Your task to perform on an android device: turn off airplane mode Image 0: 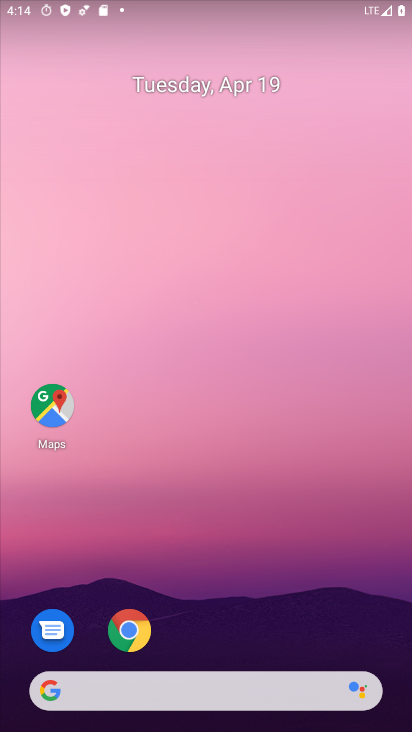
Step 0: drag from (220, 633) to (212, 152)
Your task to perform on an android device: turn off airplane mode Image 1: 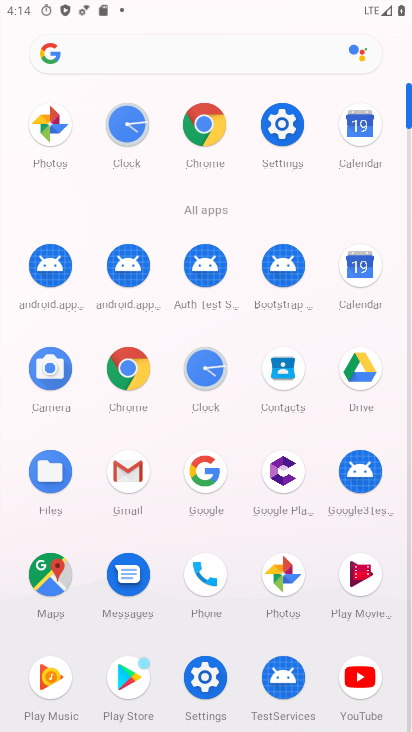
Step 1: click (284, 139)
Your task to perform on an android device: turn off airplane mode Image 2: 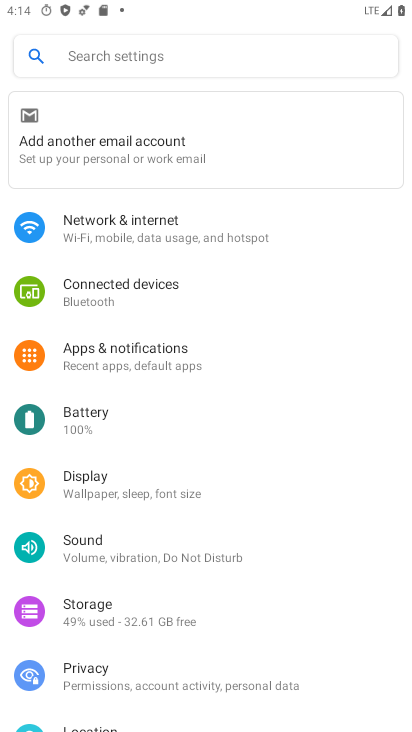
Step 2: click (149, 245)
Your task to perform on an android device: turn off airplane mode Image 3: 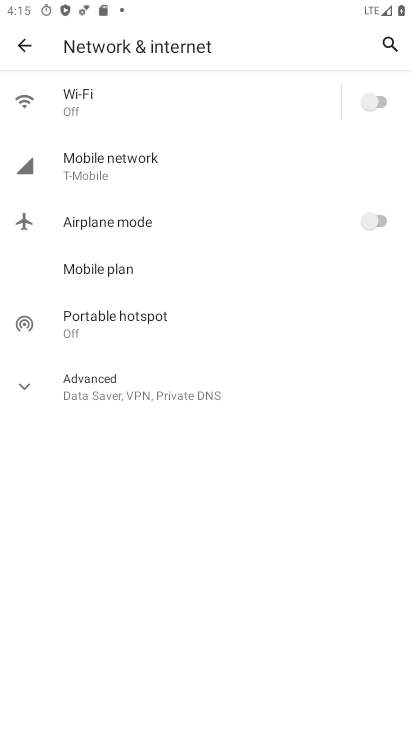
Step 3: task complete